Your task to perform on an android device: turn on priority inbox in the gmail app Image 0: 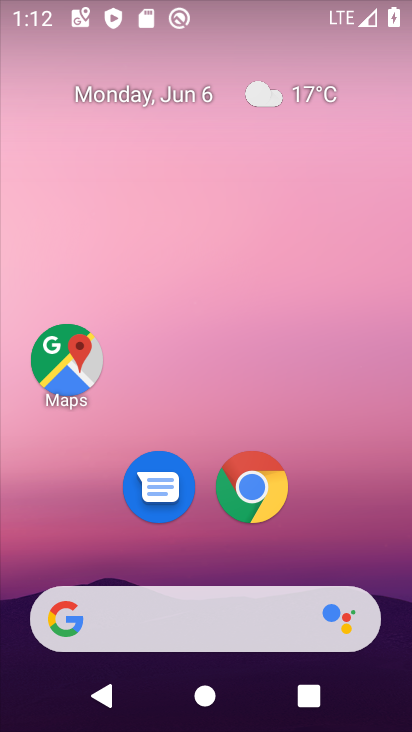
Step 0: drag from (207, 508) to (276, 68)
Your task to perform on an android device: turn on priority inbox in the gmail app Image 1: 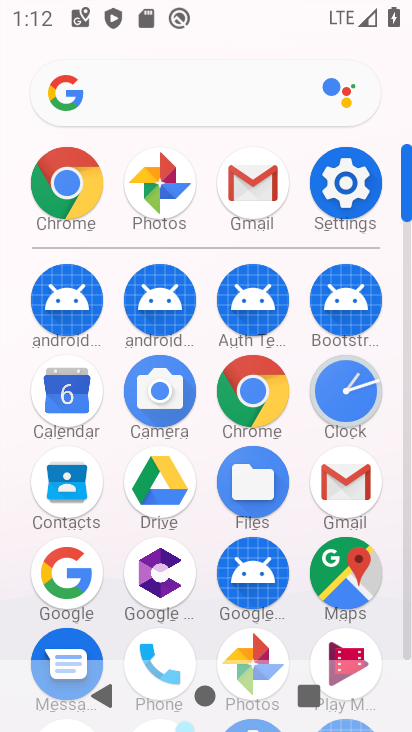
Step 1: click (254, 204)
Your task to perform on an android device: turn on priority inbox in the gmail app Image 2: 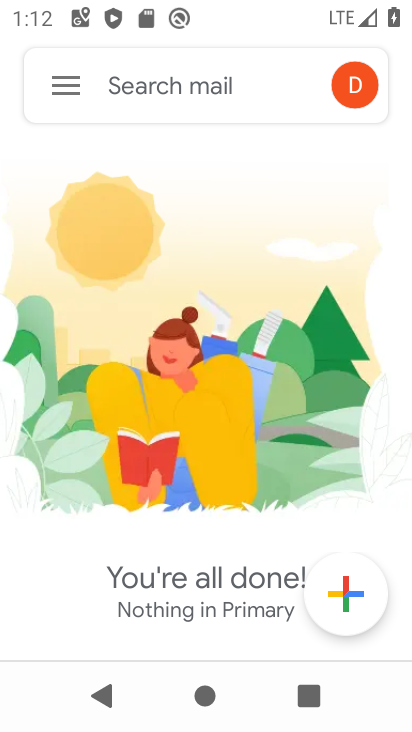
Step 2: click (61, 71)
Your task to perform on an android device: turn on priority inbox in the gmail app Image 3: 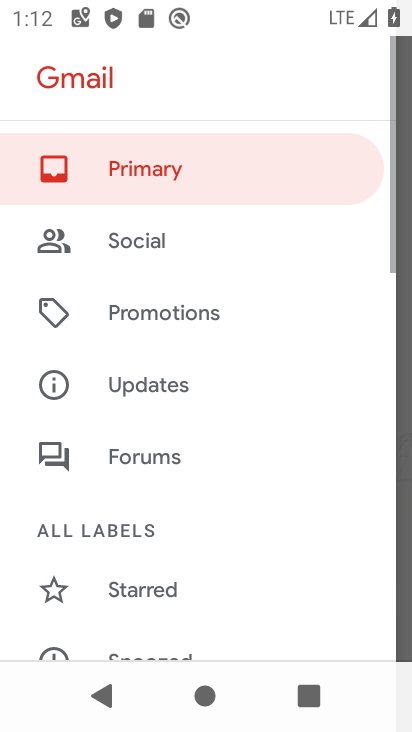
Step 3: drag from (227, 626) to (328, 76)
Your task to perform on an android device: turn on priority inbox in the gmail app Image 4: 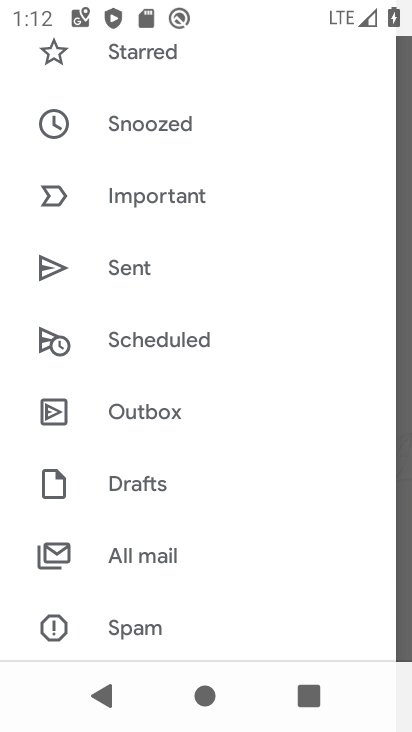
Step 4: drag from (234, 586) to (310, 17)
Your task to perform on an android device: turn on priority inbox in the gmail app Image 5: 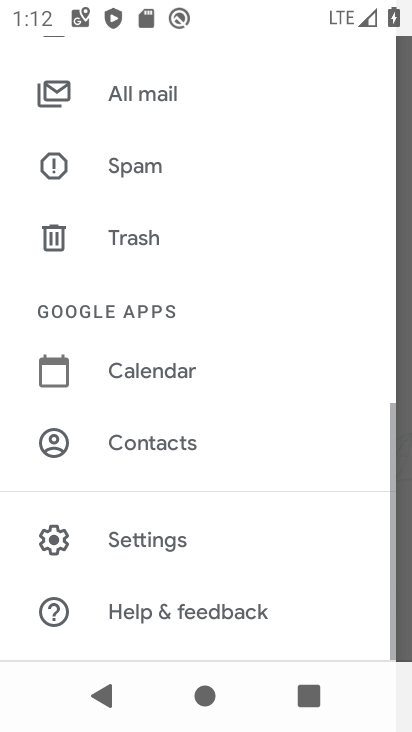
Step 5: click (139, 539)
Your task to perform on an android device: turn on priority inbox in the gmail app Image 6: 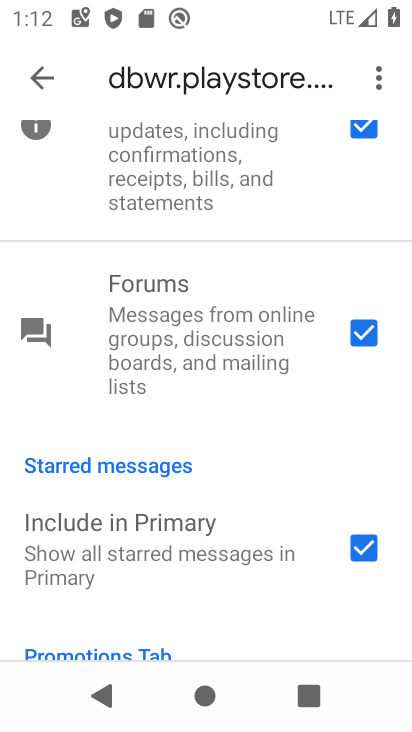
Step 6: drag from (247, 205) to (316, 662)
Your task to perform on an android device: turn on priority inbox in the gmail app Image 7: 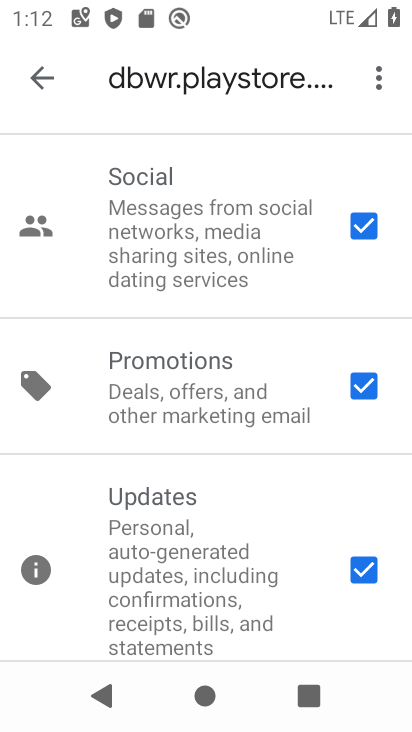
Step 7: click (39, 68)
Your task to perform on an android device: turn on priority inbox in the gmail app Image 8: 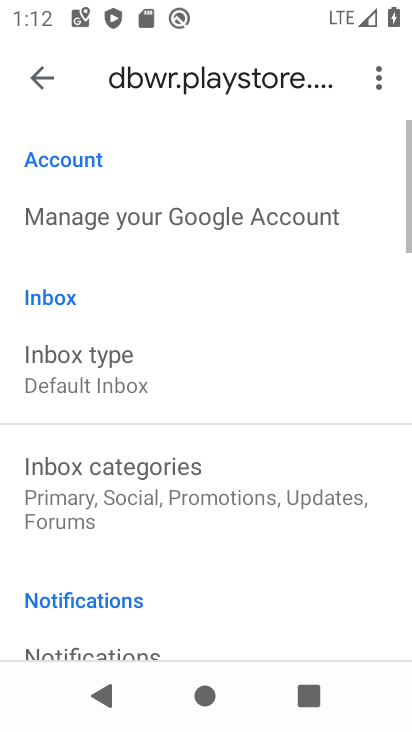
Step 8: click (124, 368)
Your task to perform on an android device: turn on priority inbox in the gmail app Image 9: 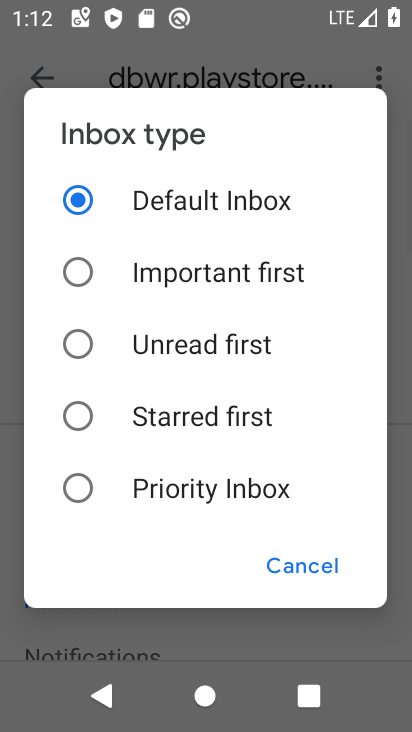
Step 9: click (94, 487)
Your task to perform on an android device: turn on priority inbox in the gmail app Image 10: 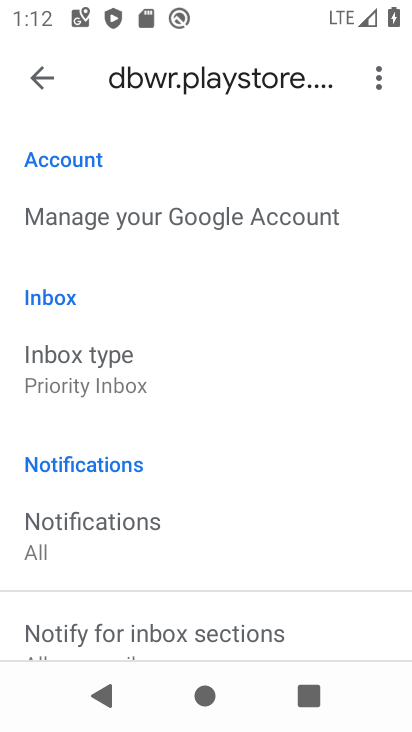
Step 10: task complete